Your task to perform on an android device: How do I get to the nearest Target? Image 0: 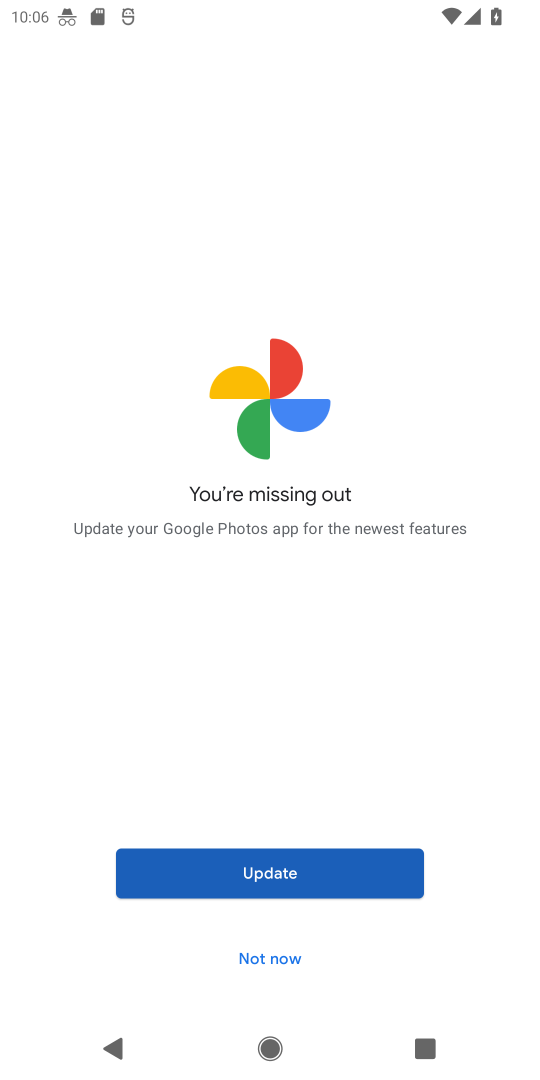
Step 0: press home button
Your task to perform on an android device: How do I get to the nearest Target? Image 1: 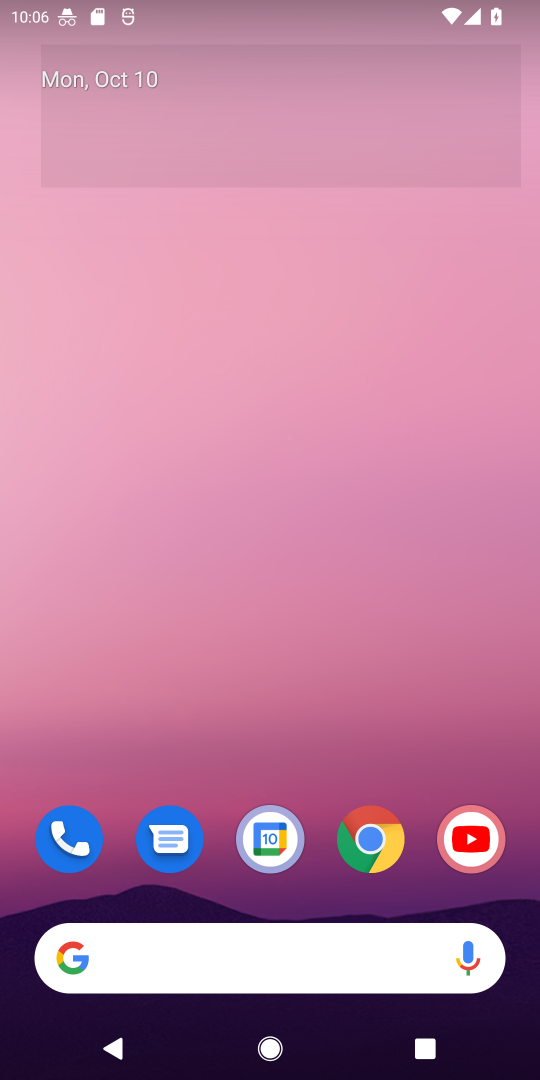
Step 1: drag from (354, 706) to (367, 22)
Your task to perform on an android device: How do I get to the nearest Target? Image 2: 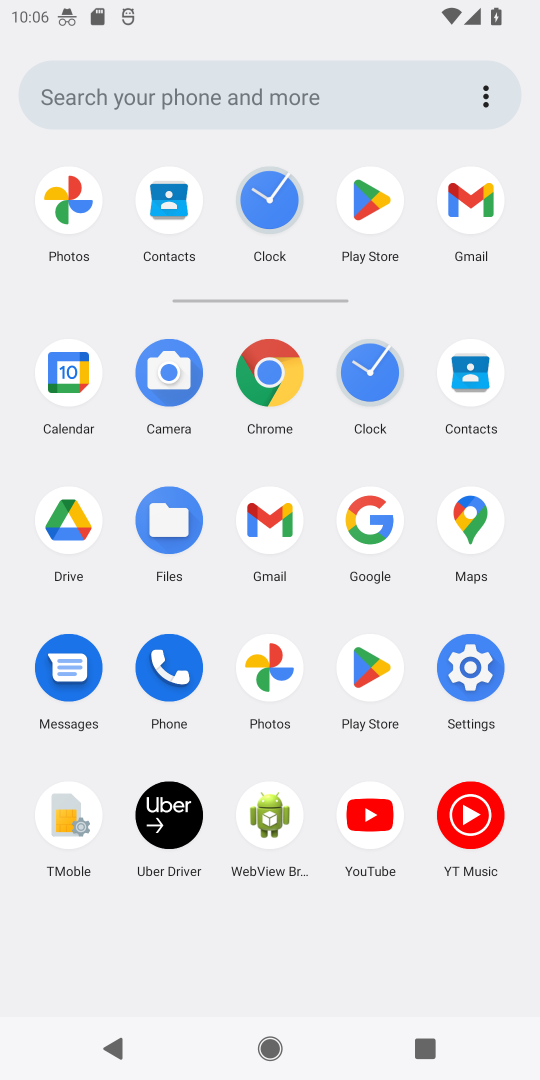
Step 2: click (268, 376)
Your task to perform on an android device: How do I get to the nearest Target? Image 3: 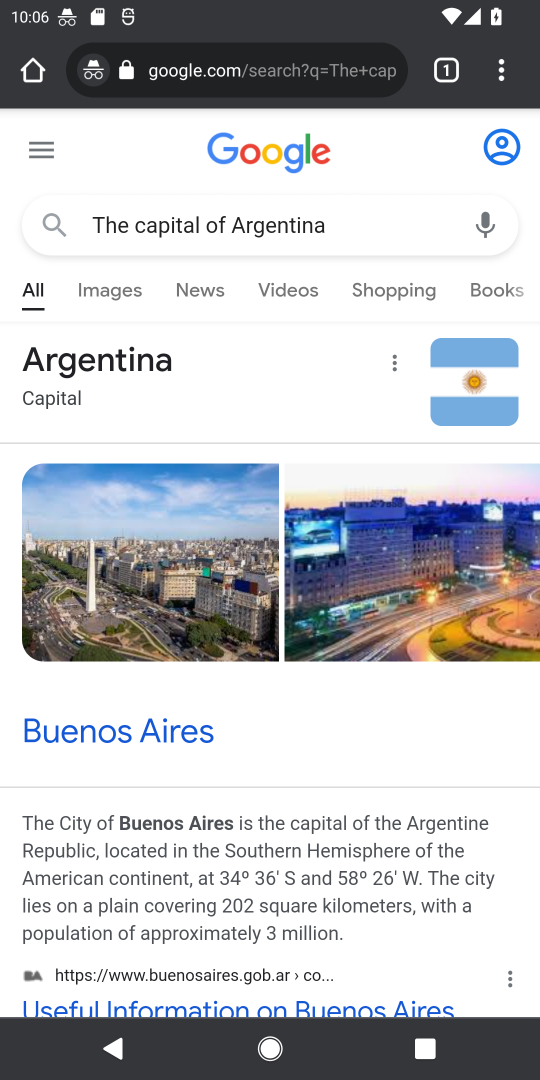
Step 3: click (284, 73)
Your task to perform on an android device: How do I get to the nearest Target? Image 4: 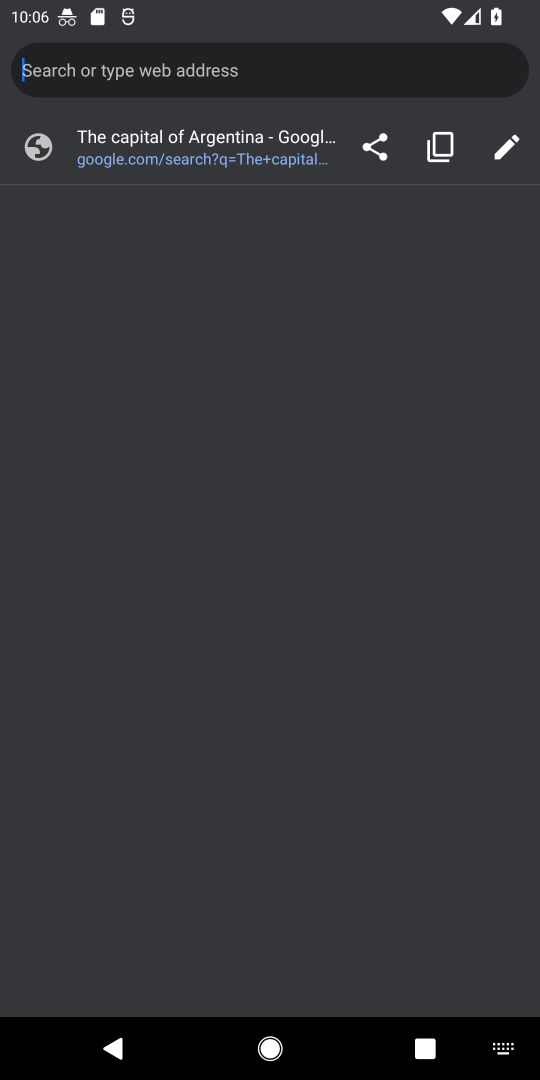
Step 4: type "How do I get to the nearest Target?"
Your task to perform on an android device: How do I get to the nearest Target? Image 5: 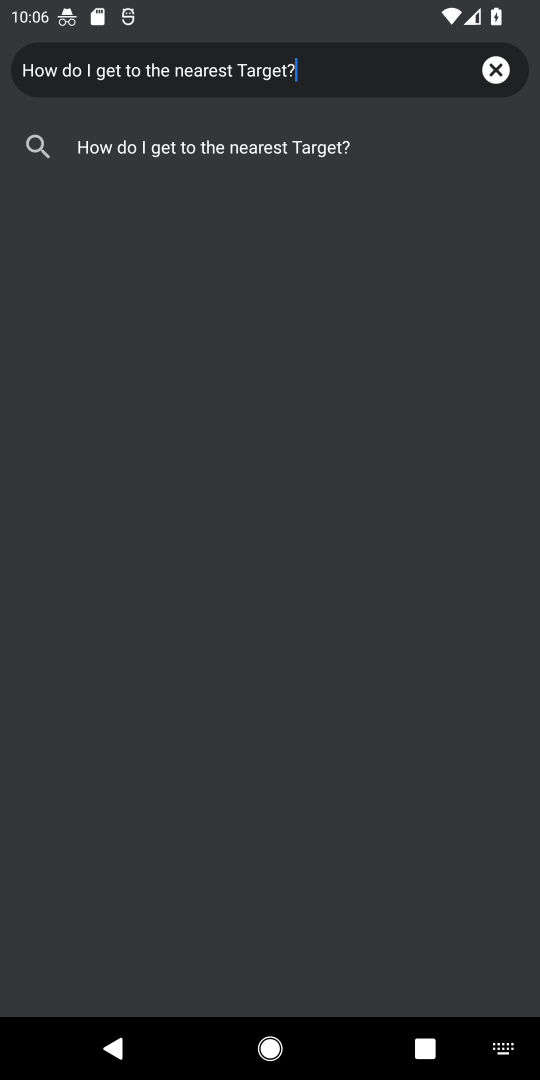
Step 5: press enter
Your task to perform on an android device: How do I get to the nearest Target? Image 6: 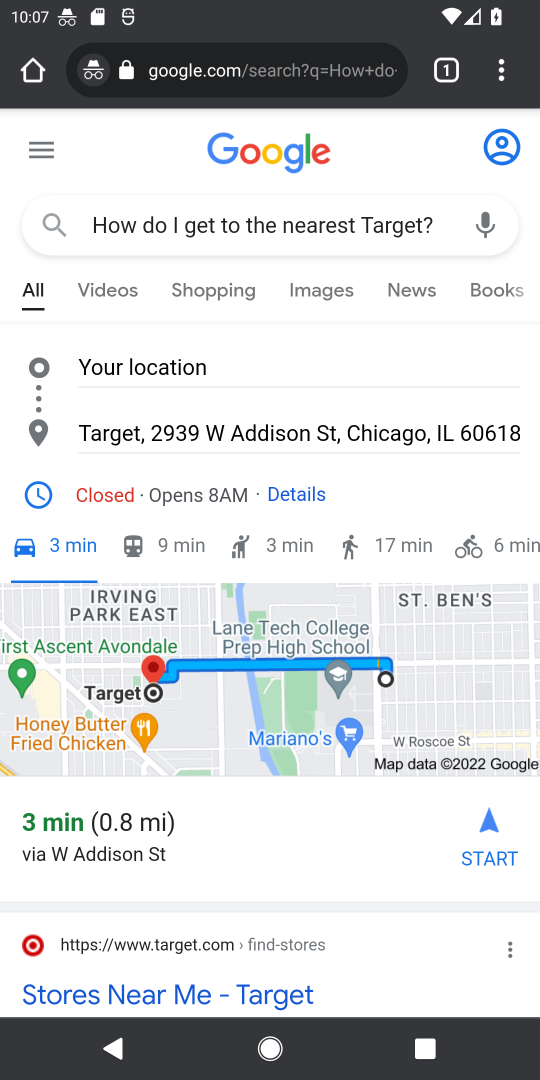
Step 6: task complete